Your task to perform on an android device: turn notification dots on Image 0: 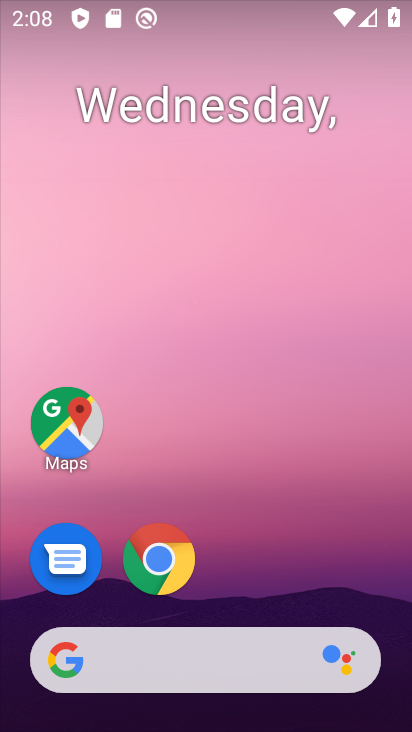
Step 0: drag from (254, 378) to (308, 29)
Your task to perform on an android device: turn notification dots on Image 1: 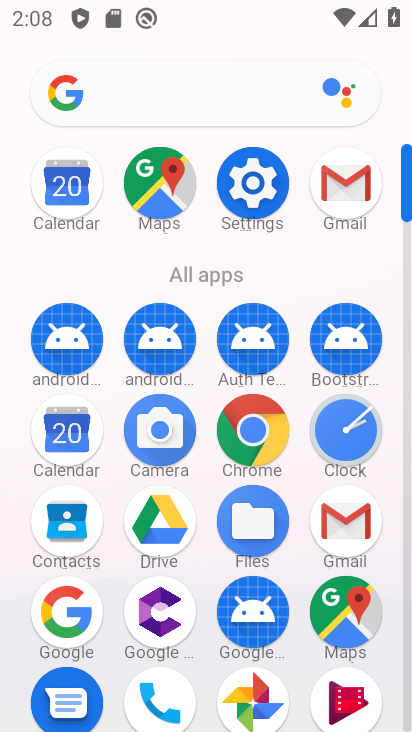
Step 1: click (259, 166)
Your task to perform on an android device: turn notification dots on Image 2: 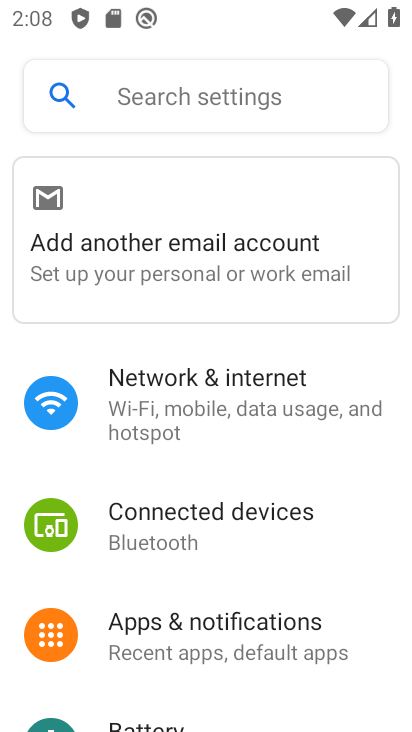
Step 2: click (199, 639)
Your task to perform on an android device: turn notification dots on Image 3: 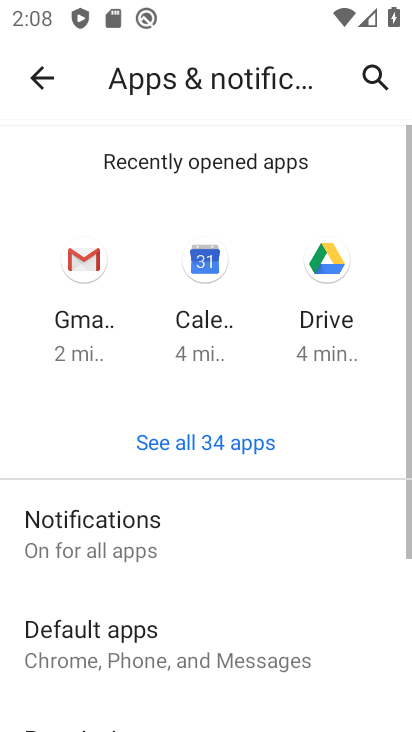
Step 3: click (163, 554)
Your task to perform on an android device: turn notification dots on Image 4: 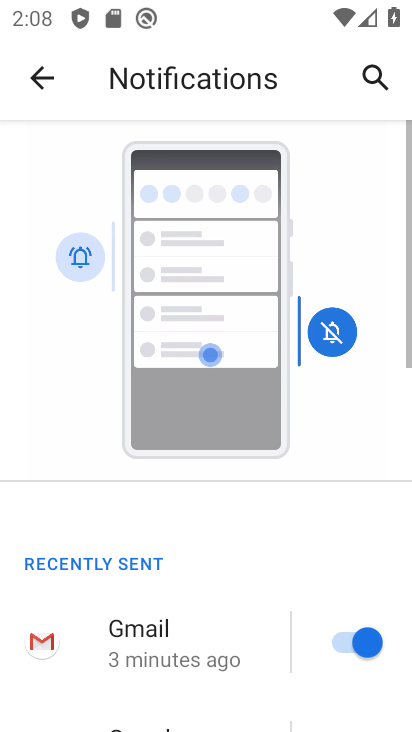
Step 4: drag from (171, 685) to (241, 100)
Your task to perform on an android device: turn notification dots on Image 5: 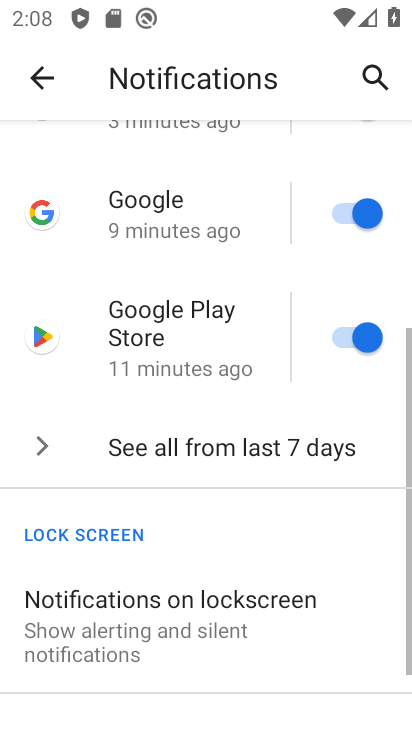
Step 5: drag from (182, 650) to (227, 131)
Your task to perform on an android device: turn notification dots on Image 6: 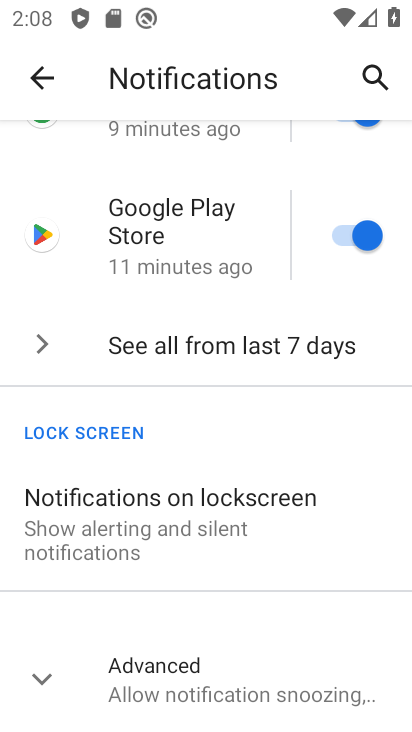
Step 6: click (163, 669)
Your task to perform on an android device: turn notification dots on Image 7: 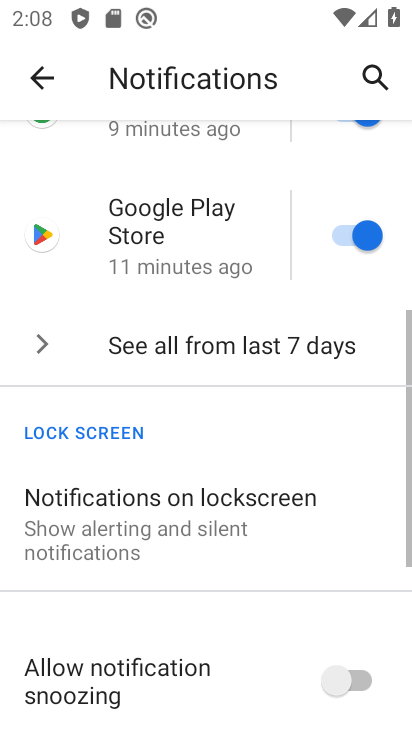
Step 7: drag from (224, 687) to (228, 43)
Your task to perform on an android device: turn notification dots on Image 8: 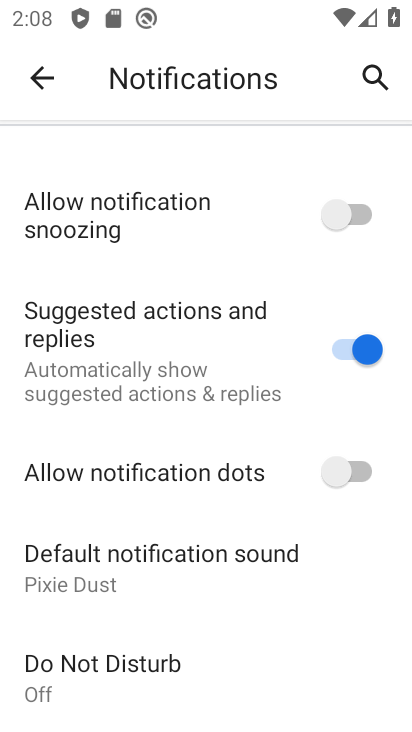
Step 8: click (345, 467)
Your task to perform on an android device: turn notification dots on Image 9: 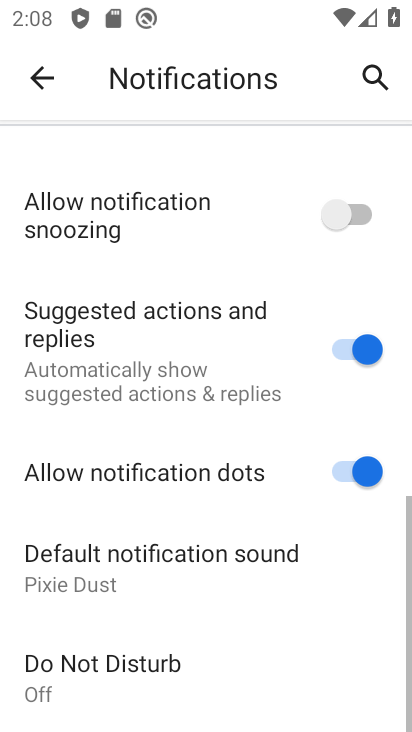
Step 9: task complete